Your task to perform on an android device: change keyboard looks Image 0: 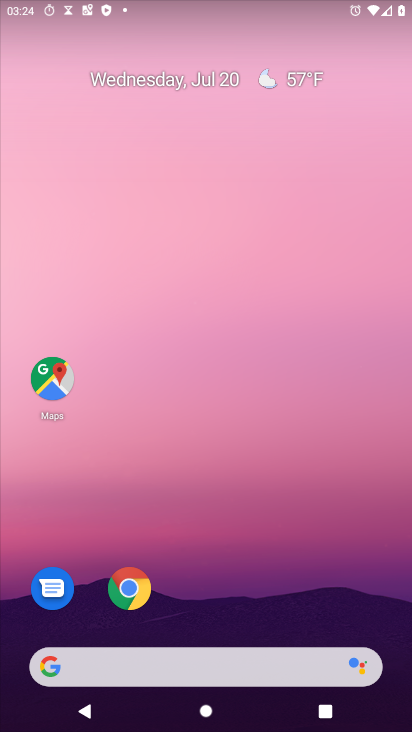
Step 0: drag from (251, 623) to (216, 5)
Your task to perform on an android device: change keyboard looks Image 1: 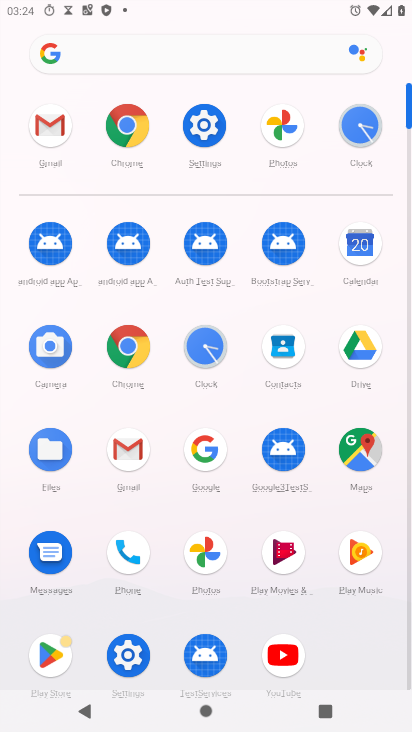
Step 1: click (205, 119)
Your task to perform on an android device: change keyboard looks Image 2: 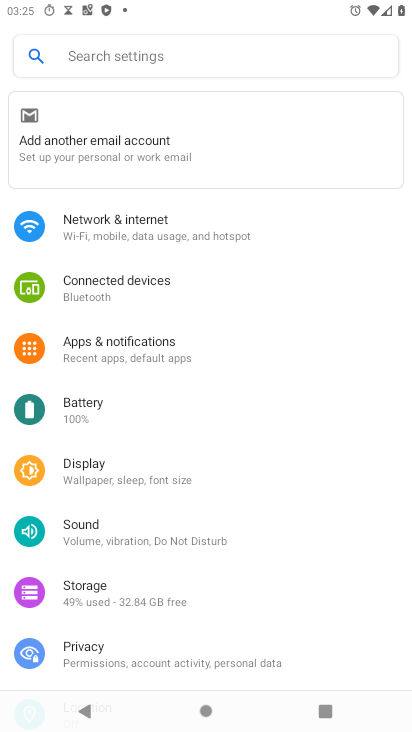
Step 2: drag from (133, 667) to (168, 43)
Your task to perform on an android device: change keyboard looks Image 3: 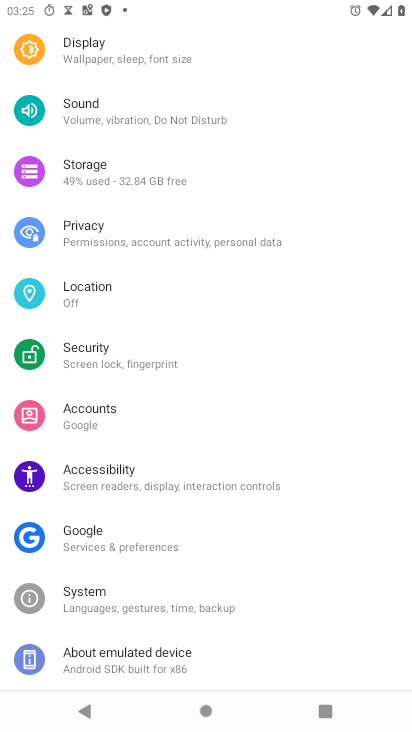
Step 3: click (137, 601)
Your task to perform on an android device: change keyboard looks Image 4: 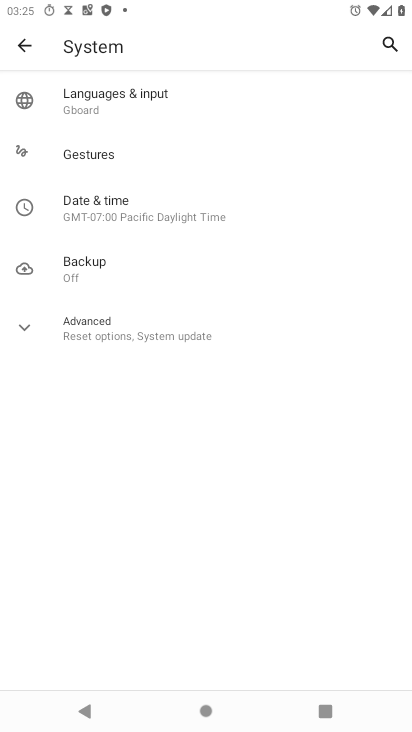
Step 4: click (103, 99)
Your task to perform on an android device: change keyboard looks Image 5: 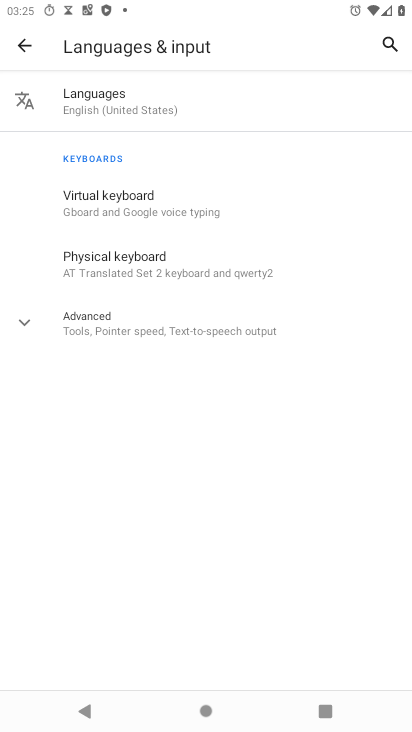
Step 5: click (145, 207)
Your task to perform on an android device: change keyboard looks Image 6: 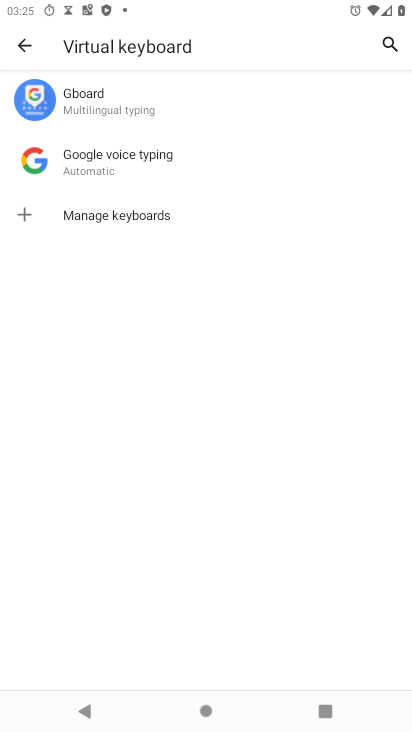
Step 6: click (83, 105)
Your task to perform on an android device: change keyboard looks Image 7: 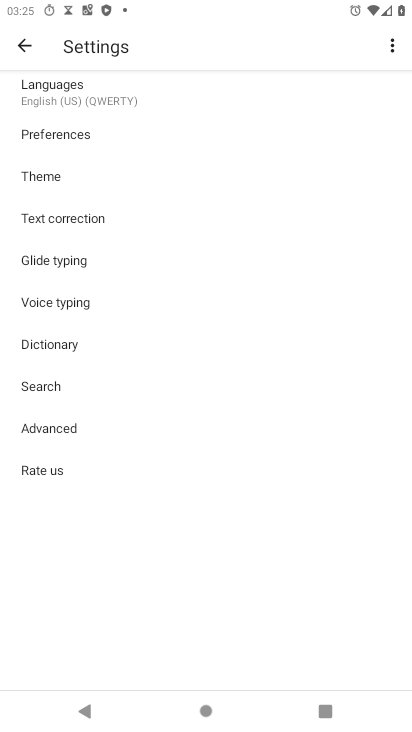
Step 7: click (61, 174)
Your task to perform on an android device: change keyboard looks Image 8: 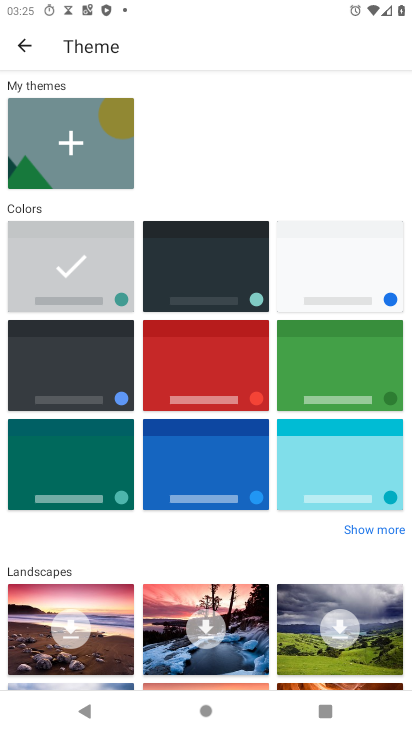
Step 8: click (297, 372)
Your task to perform on an android device: change keyboard looks Image 9: 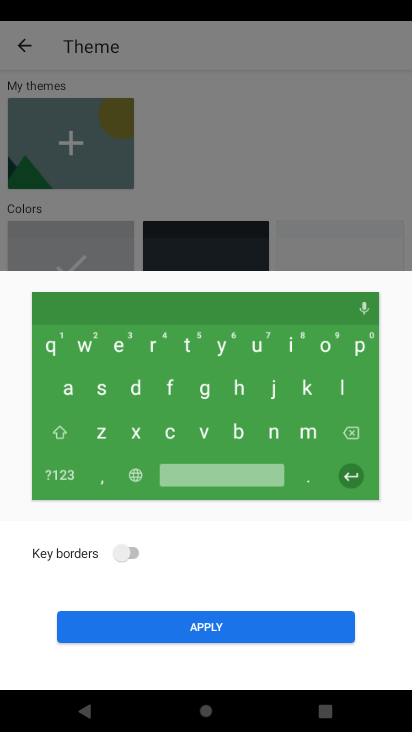
Step 9: click (254, 622)
Your task to perform on an android device: change keyboard looks Image 10: 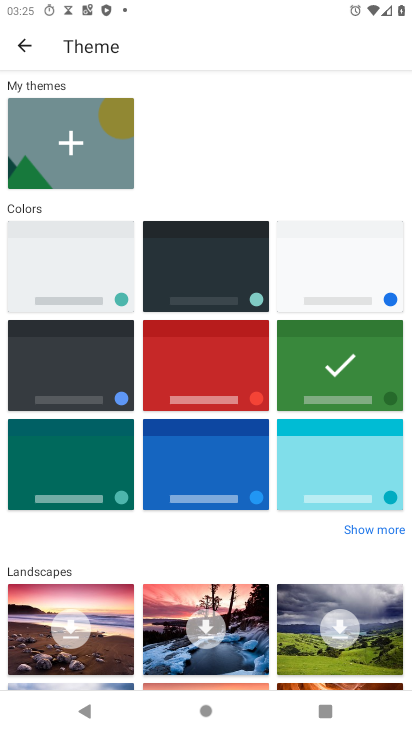
Step 10: task complete